Your task to perform on an android device: open app "Paramount+ | Peak Streaming" (install if not already installed) and enter user name: "fostered@yahoo.com" and password: "strong" Image 0: 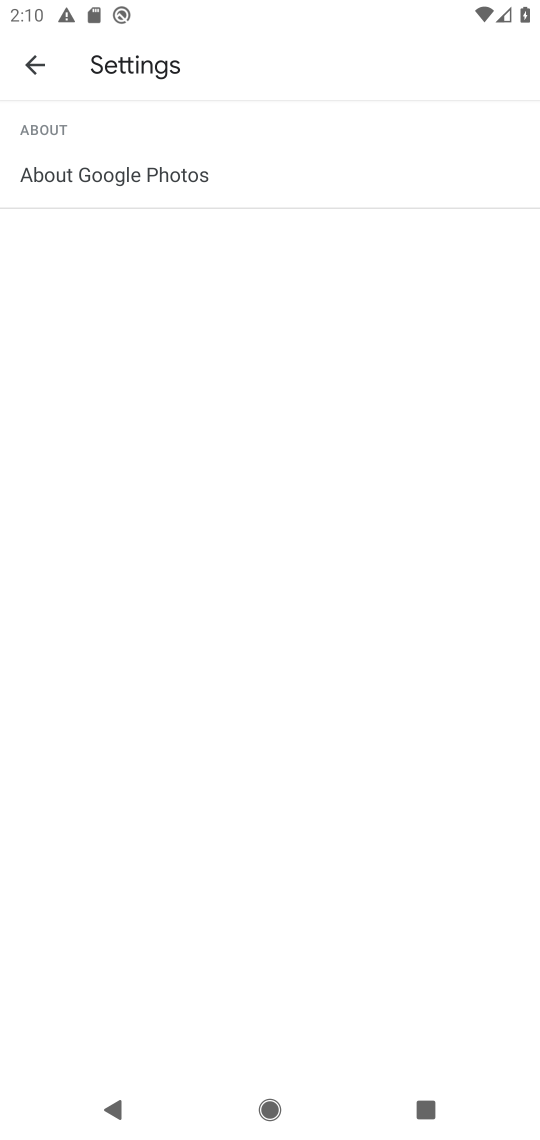
Step 0: press home button
Your task to perform on an android device: open app "Paramount+ | Peak Streaming" (install if not already installed) and enter user name: "fostered@yahoo.com" and password: "strong" Image 1: 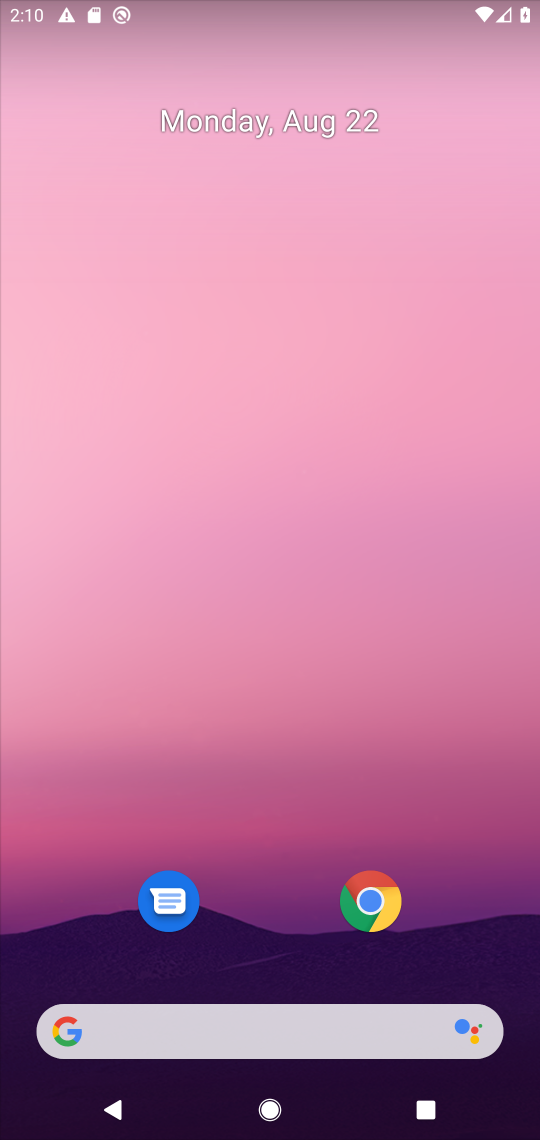
Step 1: drag from (504, 960) to (407, 149)
Your task to perform on an android device: open app "Paramount+ | Peak Streaming" (install if not already installed) and enter user name: "fostered@yahoo.com" and password: "strong" Image 2: 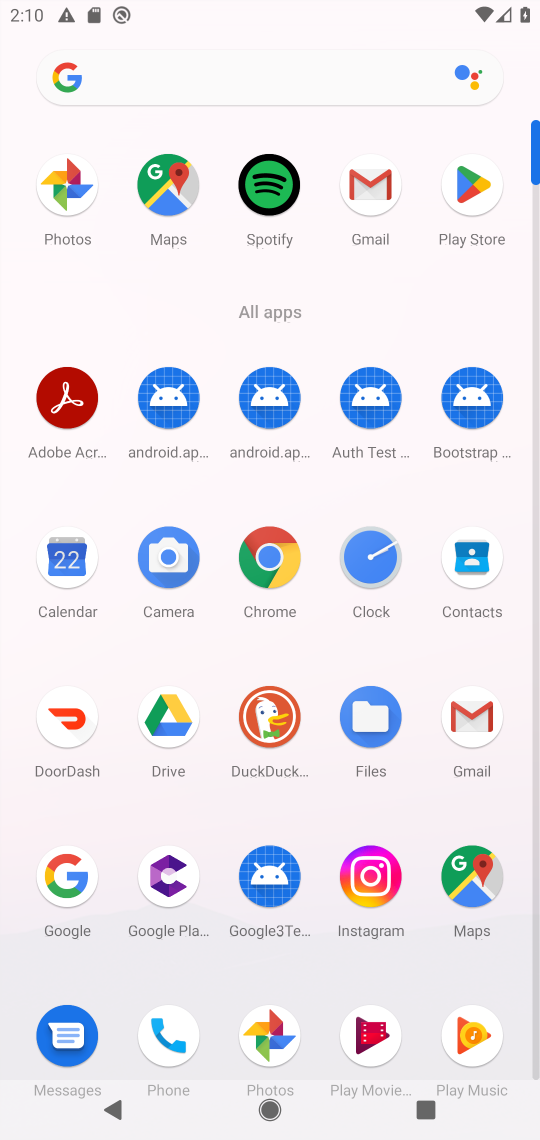
Step 2: drag from (318, 973) to (306, 251)
Your task to perform on an android device: open app "Paramount+ | Peak Streaming" (install if not already installed) and enter user name: "fostered@yahoo.com" and password: "strong" Image 3: 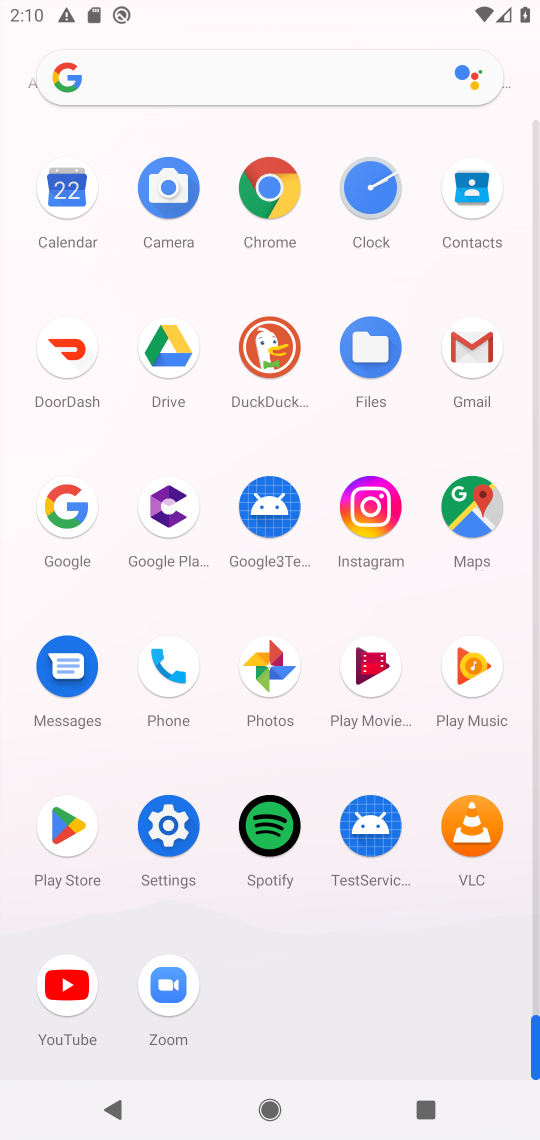
Step 3: click (68, 828)
Your task to perform on an android device: open app "Paramount+ | Peak Streaming" (install if not already installed) and enter user name: "fostered@yahoo.com" and password: "strong" Image 4: 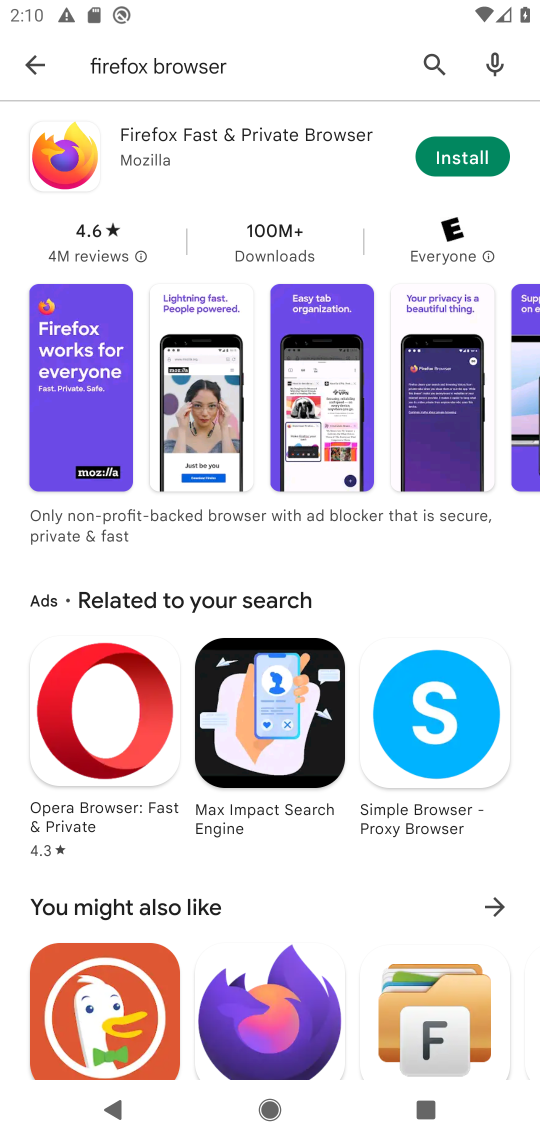
Step 4: click (422, 54)
Your task to perform on an android device: open app "Paramount+ | Peak Streaming" (install if not already installed) and enter user name: "fostered@yahoo.com" and password: "strong" Image 5: 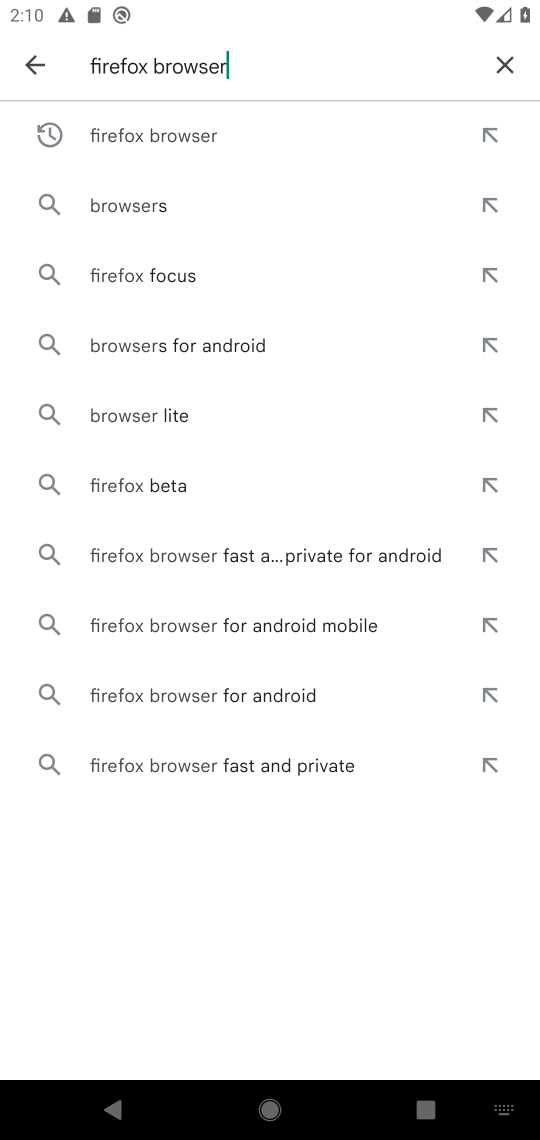
Step 5: click (507, 60)
Your task to perform on an android device: open app "Paramount+ | Peak Streaming" (install if not already installed) and enter user name: "fostered@yahoo.com" and password: "strong" Image 6: 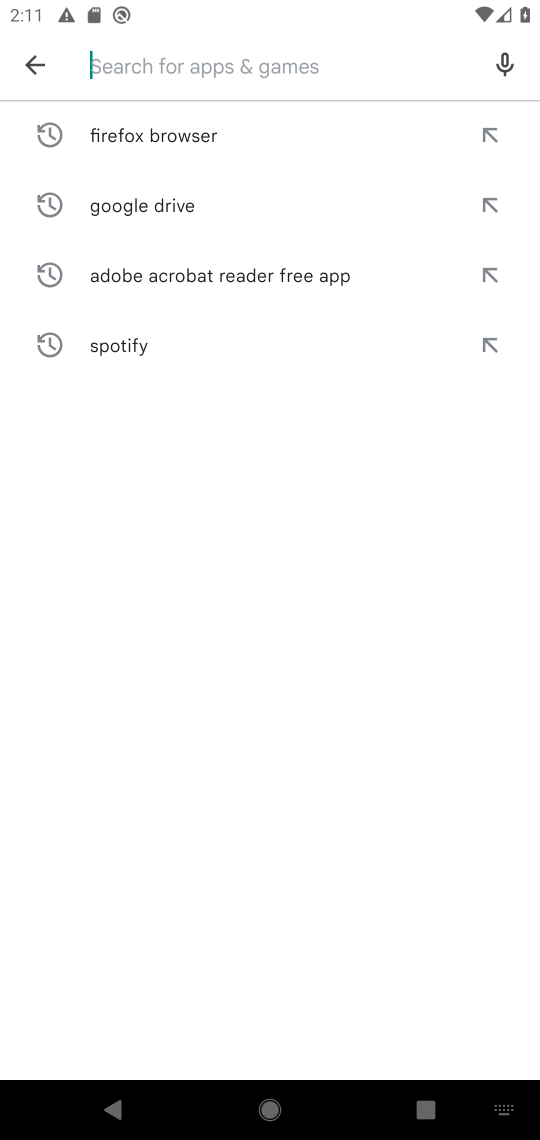
Step 6: type "Paramount+ | Peak Streaming"
Your task to perform on an android device: open app "Paramount+ | Peak Streaming" (install if not already installed) and enter user name: "fostered@yahoo.com" and password: "strong" Image 7: 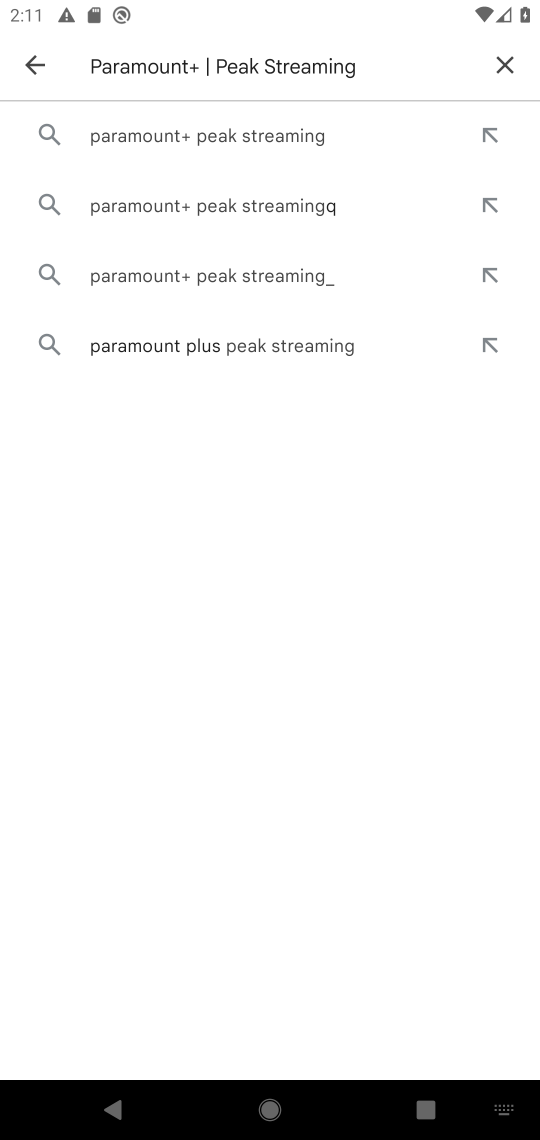
Step 7: click (243, 140)
Your task to perform on an android device: open app "Paramount+ | Peak Streaming" (install if not already installed) and enter user name: "fostered@yahoo.com" and password: "strong" Image 8: 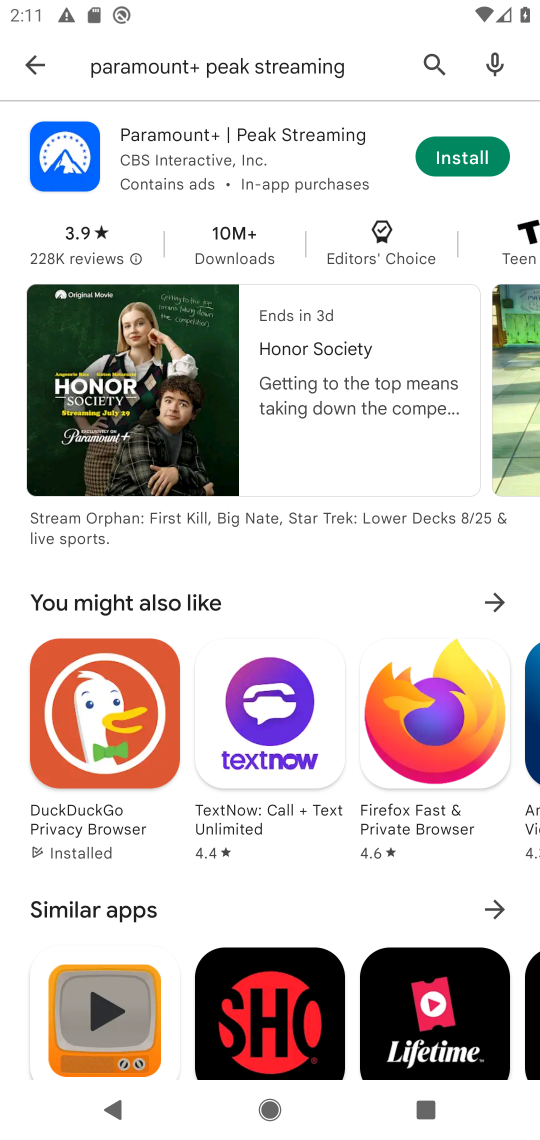
Step 8: click (196, 130)
Your task to perform on an android device: open app "Paramount+ | Peak Streaming" (install if not already installed) and enter user name: "fostered@yahoo.com" and password: "strong" Image 9: 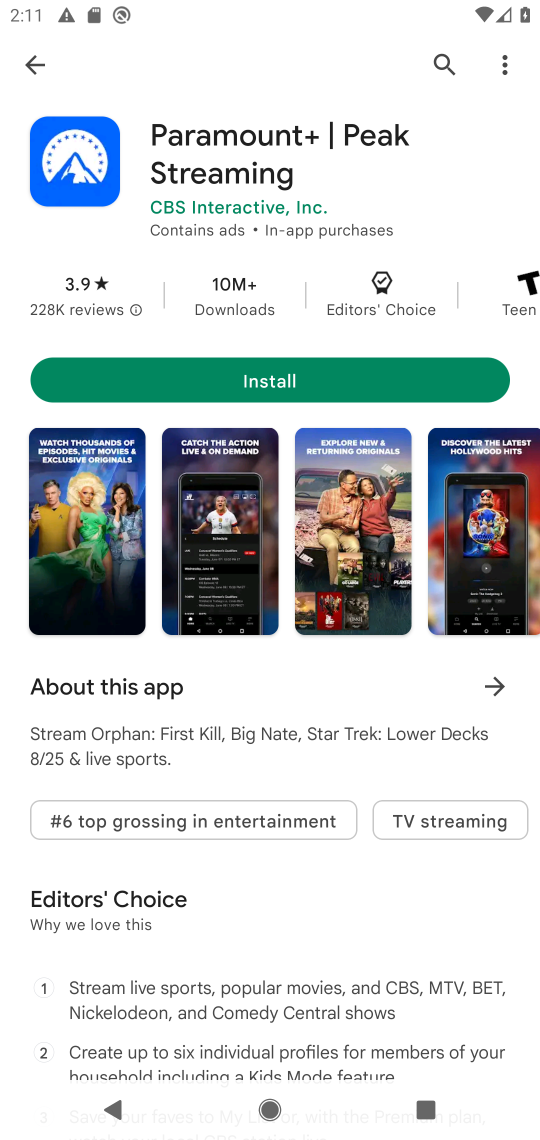
Step 9: click (271, 388)
Your task to perform on an android device: open app "Paramount+ | Peak Streaming" (install if not already installed) and enter user name: "fostered@yahoo.com" and password: "strong" Image 10: 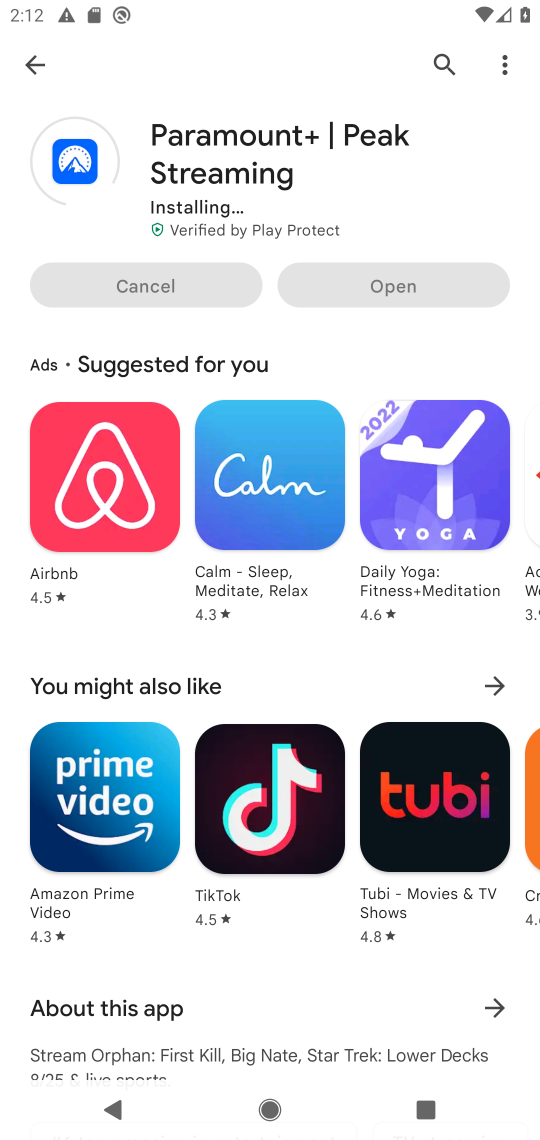
Step 10: drag from (268, 355) to (272, 728)
Your task to perform on an android device: open app "Paramount+ | Peak Streaming" (install if not already installed) and enter user name: "fostered@yahoo.com" and password: "strong" Image 11: 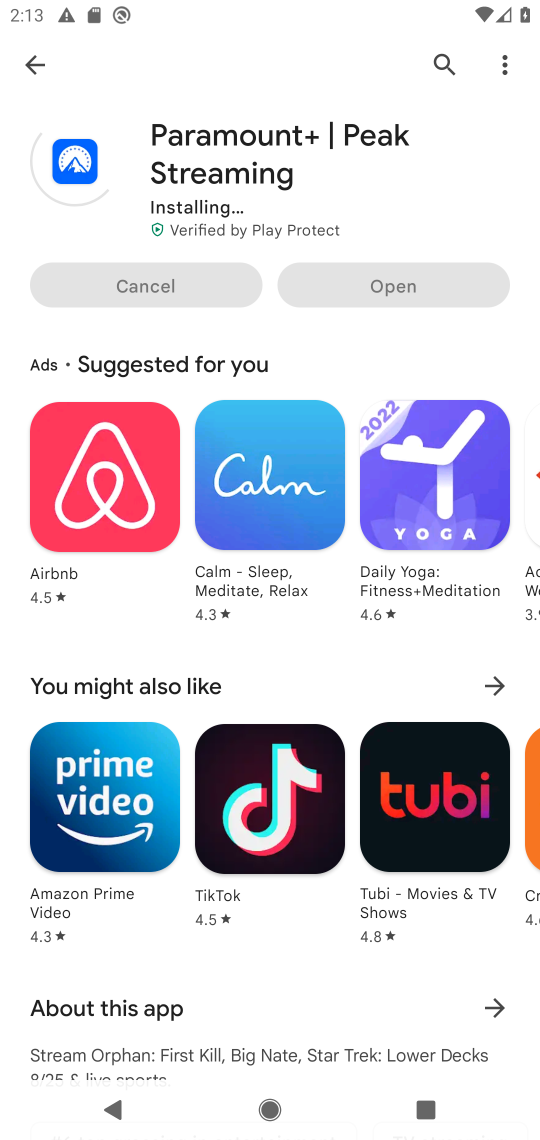
Step 11: drag from (274, 186) to (284, 285)
Your task to perform on an android device: open app "Paramount+ | Peak Streaming" (install if not already installed) and enter user name: "fostered@yahoo.com" and password: "strong" Image 12: 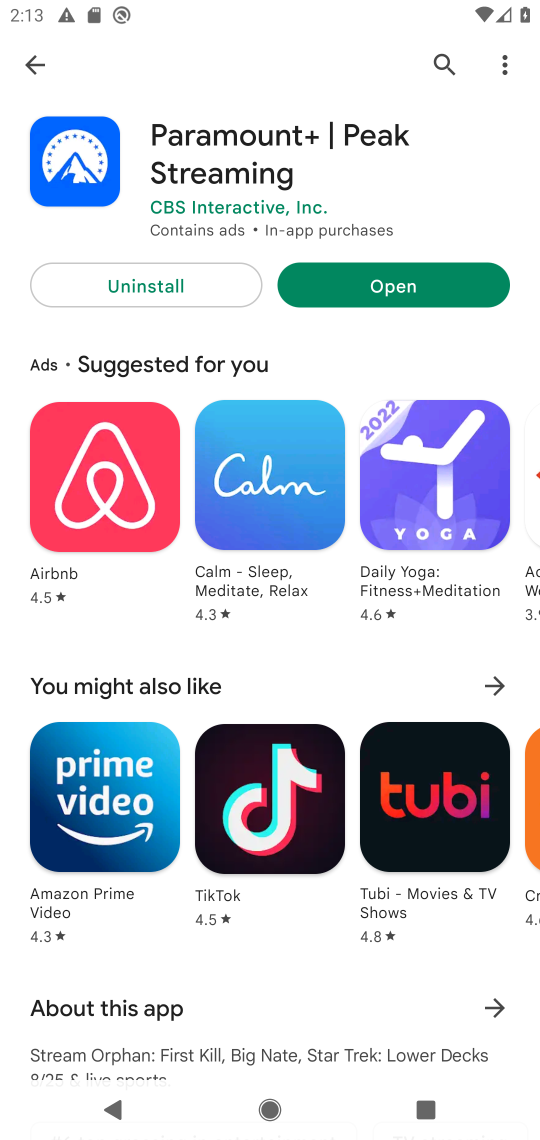
Step 12: click (390, 282)
Your task to perform on an android device: open app "Paramount+ | Peak Streaming" (install if not already installed) and enter user name: "fostered@yahoo.com" and password: "strong" Image 13: 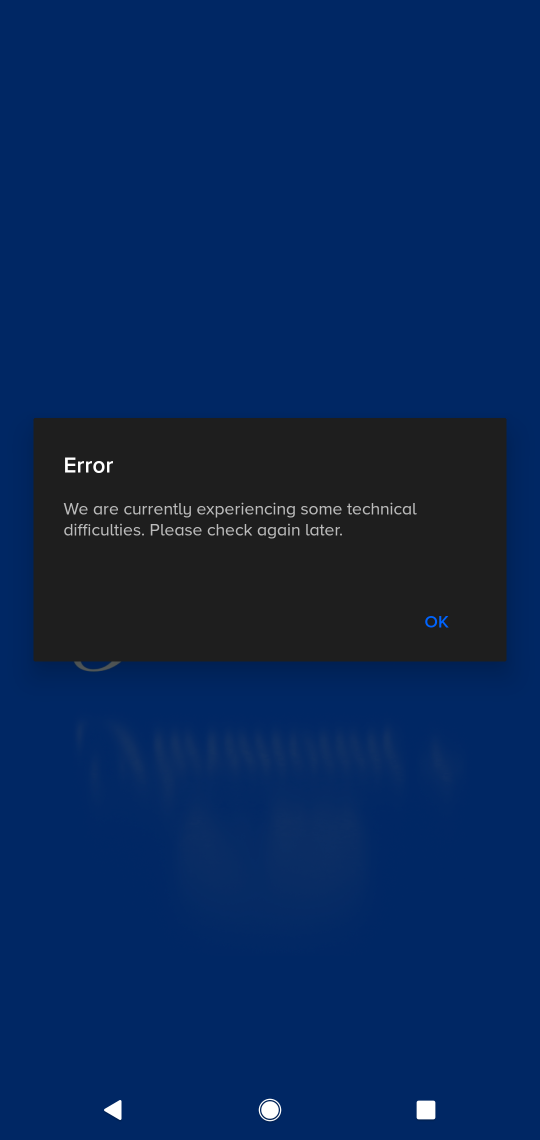
Step 13: click (430, 619)
Your task to perform on an android device: open app "Paramount+ | Peak Streaming" (install if not already installed) and enter user name: "fostered@yahoo.com" and password: "strong" Image 14: 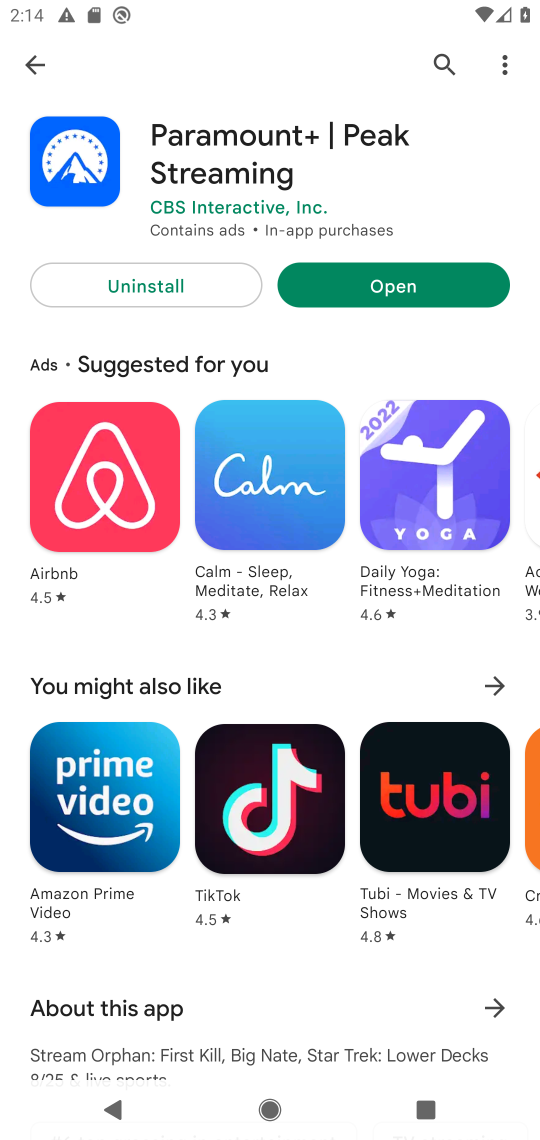
Step 14: click (391, 293)
Your task to perform on an android device: open app "Paramount+ | Peak Streaming" (install if not already installed) and enter user name: "fostered@yahoo.com" and password: "strong" Image 15: 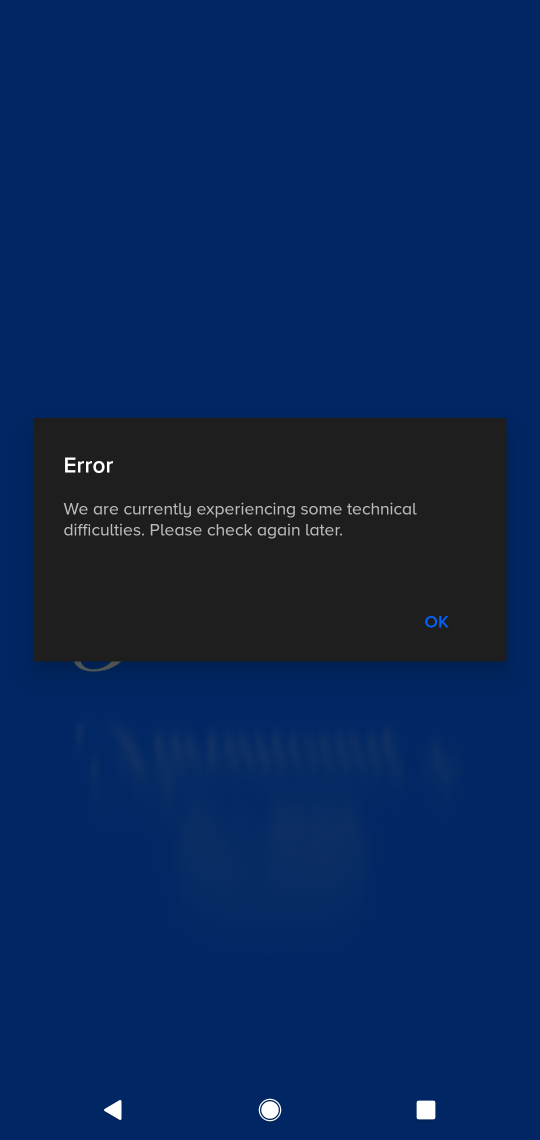
Step 15: task complete